Your task to perform on an android device: Add usb-c to usb-a to the cart on ebay, then select checkout. Image 0: 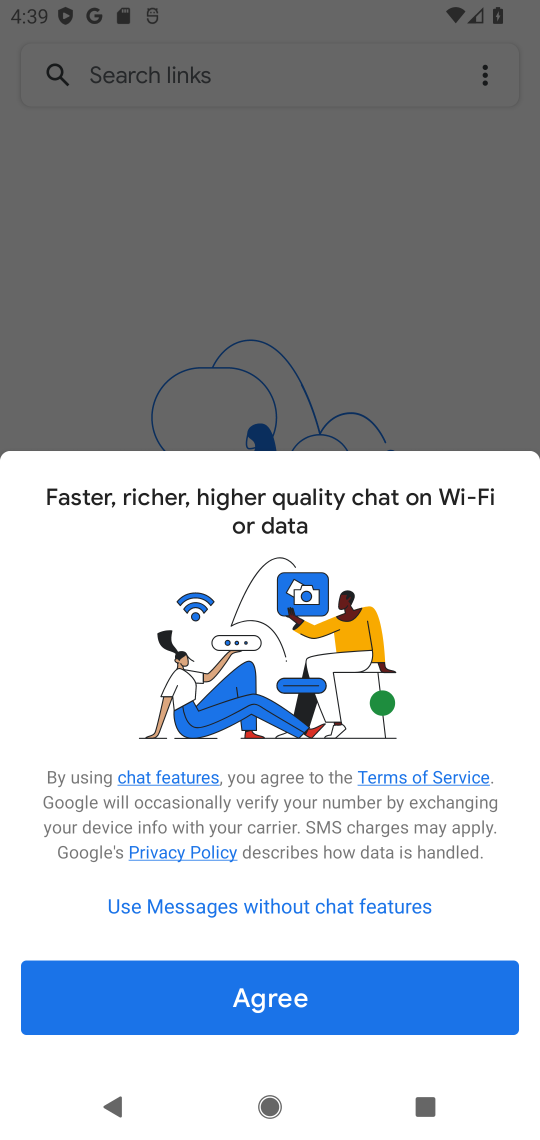
Step 0: press home button
Your task to perform on an android device: Add usb-c to usb-a to the cart on ebay, then select checkout. Image 1: 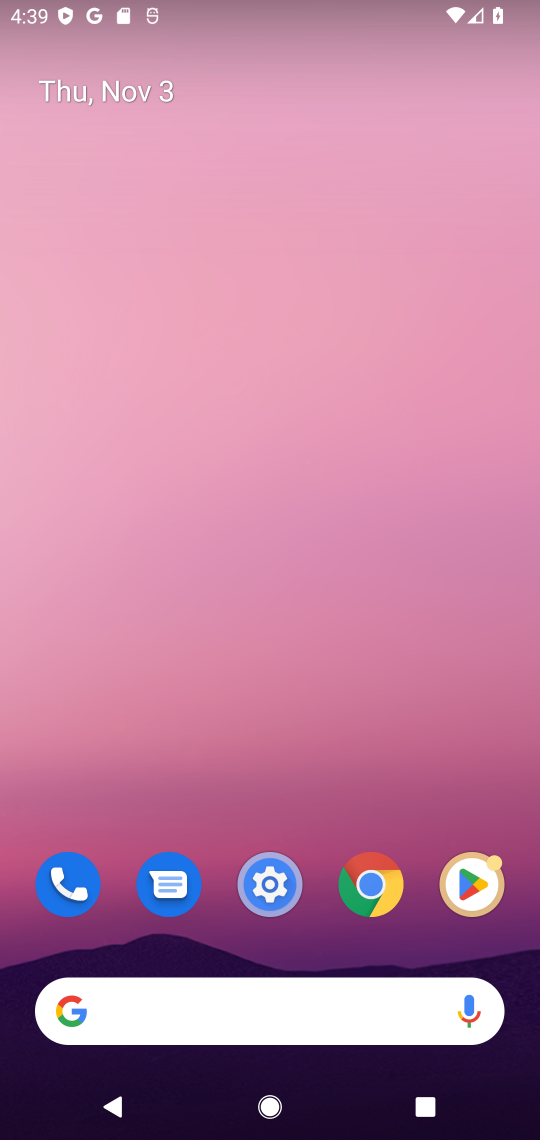
Step 1: click (111, 1005)
Your task to perform on an android device: Add usb-c to usb-a to the cart on ebay, then select checkout. Image 2: 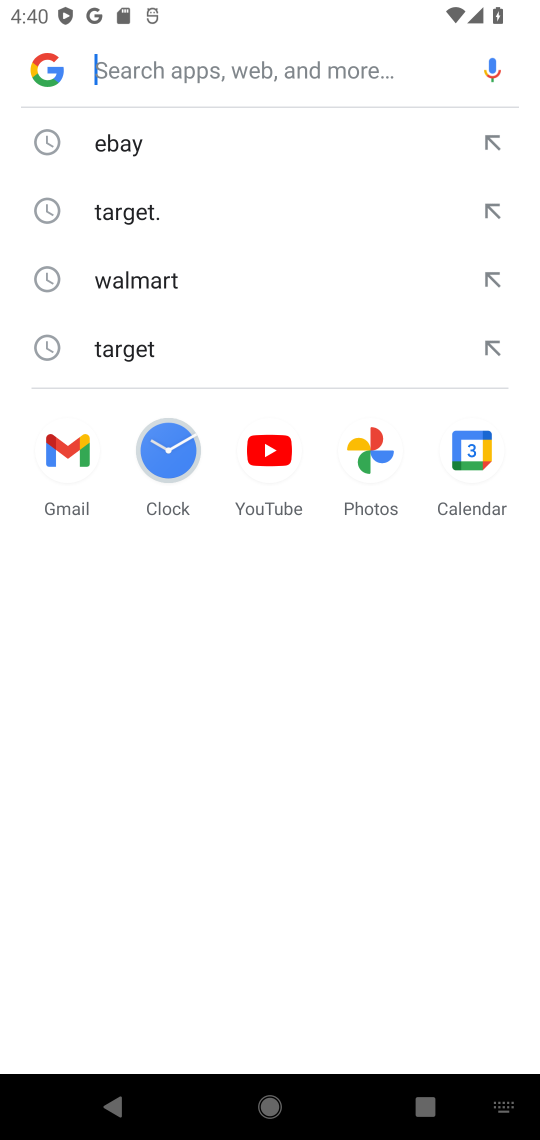
Step 2: type "ebay"
Your task to perform on an android device: Add usb-c to usb-a to the cart on ebay, then select checkout. Image 3: 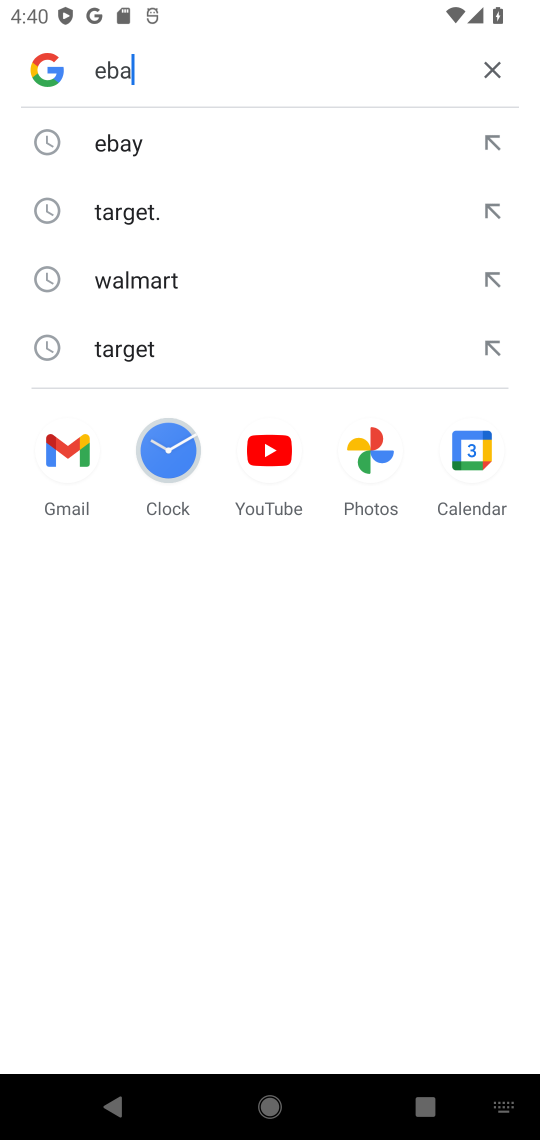
Step 3: press enter
Your task to perform on an android device: Add usb-c to usb-a to the cart on ebay, then select checkout. Image 4: 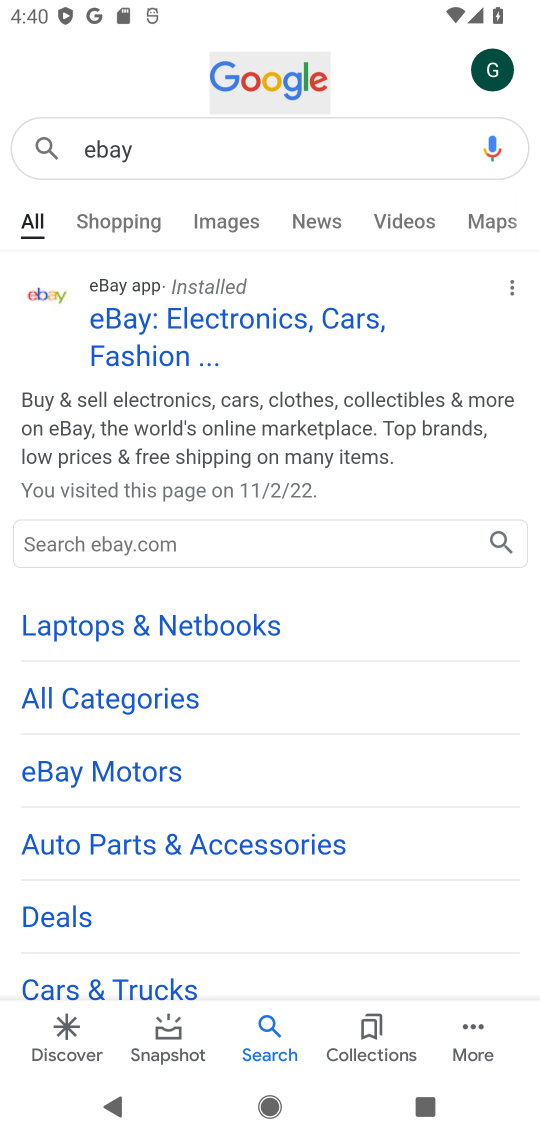
Step 4: click (134, 699)
Your task to perform on an android device: Add usb-c to usb-a to the cart on ebay, then select checkout. Image 5: 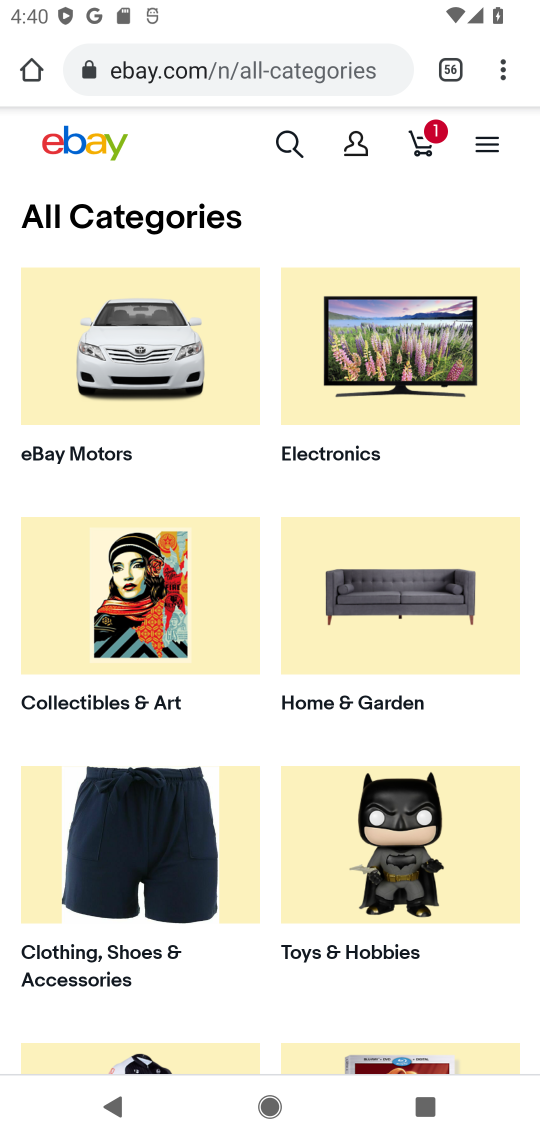
Step 5: click (287, 142)
Your task to perform on an android device: Add usb-c to usb-a to the cart on ebay, then select checkout. Image 6: 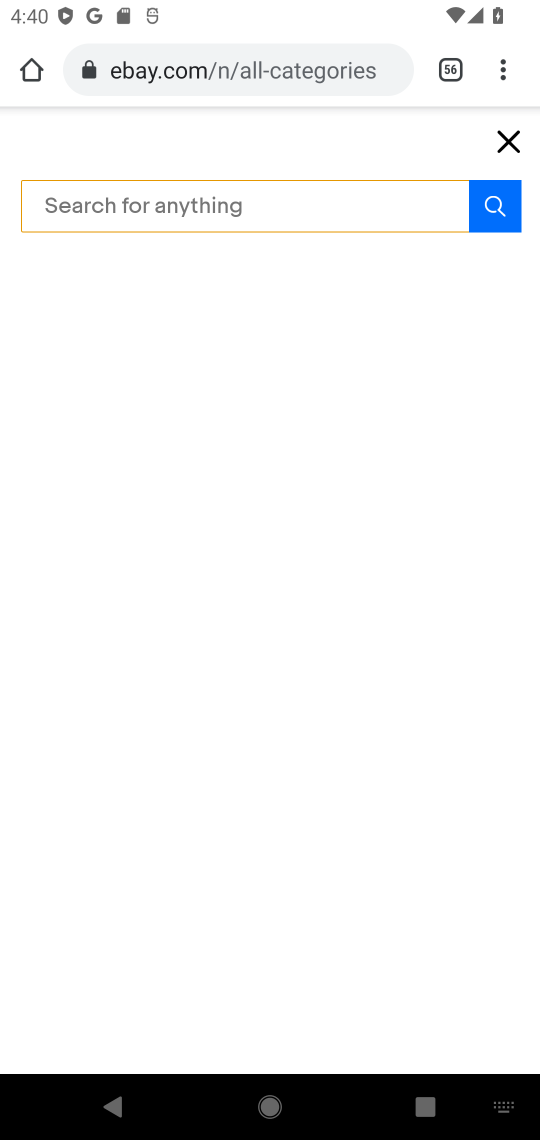
Step 6: type "usb-c to usb-a"
Your task to perform on an android device: Add usb-c to usb-a to the cart on ebay, then select checkout. Image 7: 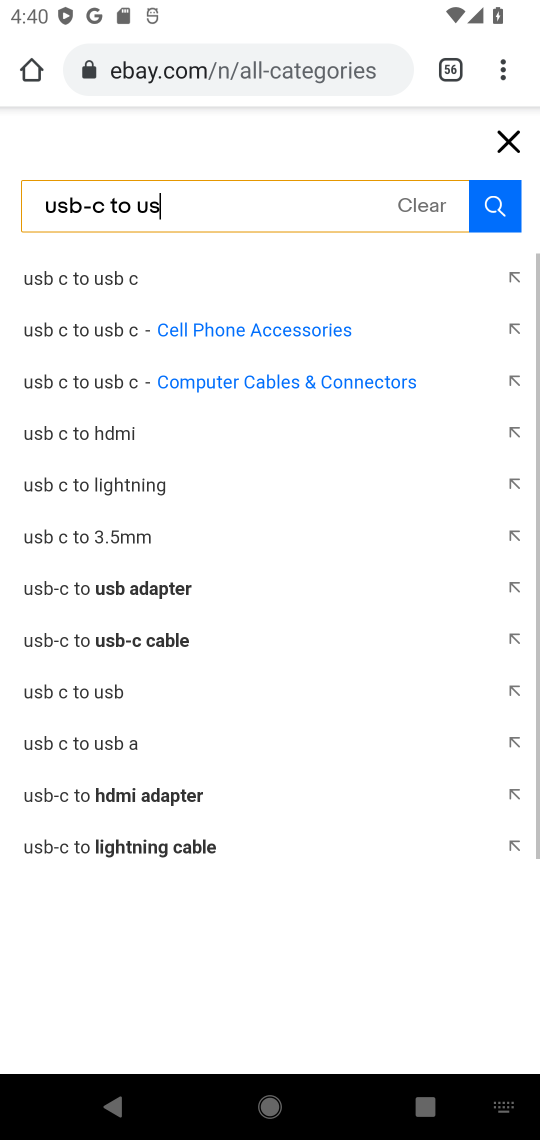
Step 7: press enter
Your task to perform on an android device: Add usb-c to usb-a to the cart on ebay, then select checkout. Image 8: 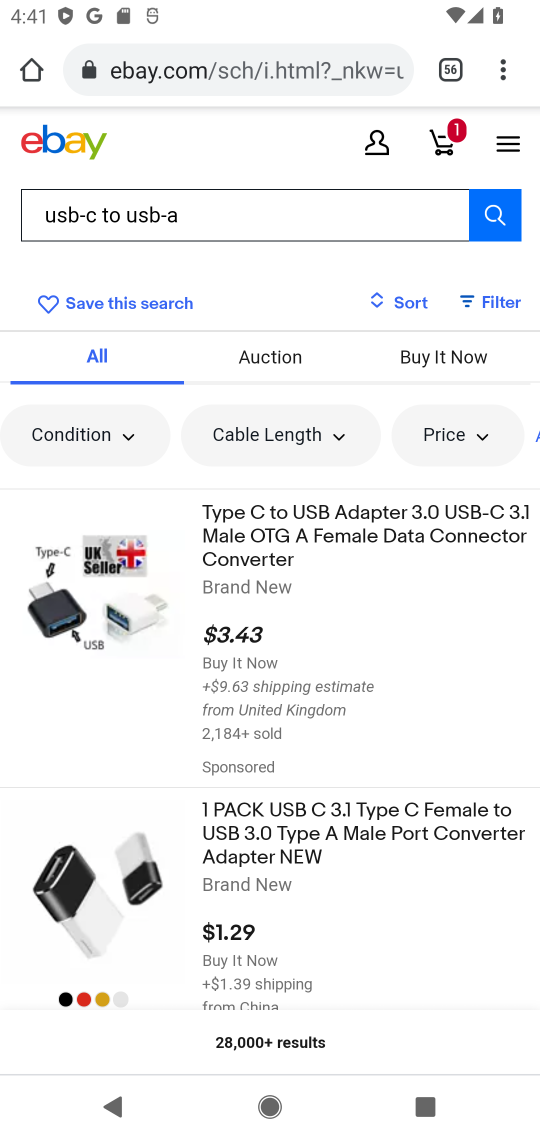
Step 8: drag from (389, 890) to (395, 626)
Your task to perform on an android device: Add usb-c to usb-a to the cart on ebay, then select checkout. Image 9: 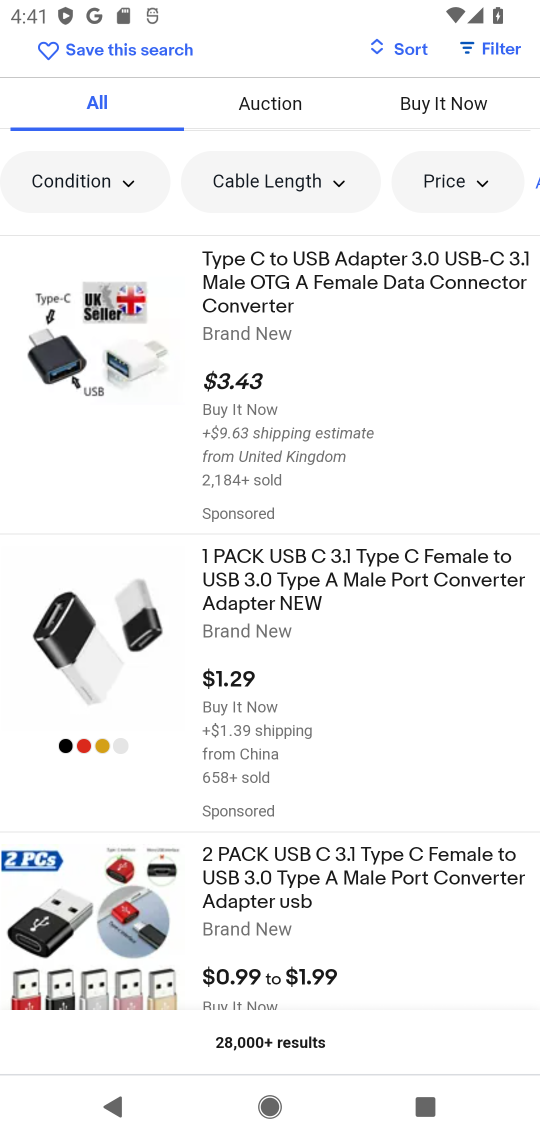
Step 9: drag from (362, 881) to (389, 581)
Your task to perform on an android device: Add usb-c to usb-a to the cart on ebay, then select checkout. Image 10: 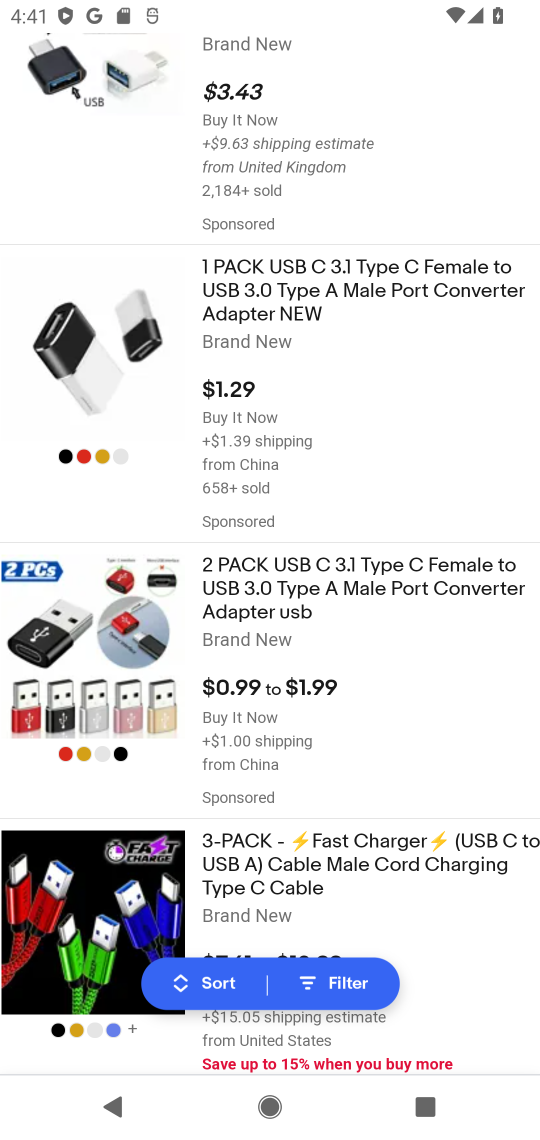
Step 10: drag from (394, 220) to (387, 639)
Your task to perform on an android device: Add usb-c to usb-a to the cart on ebay, then select checkout. Image 11: 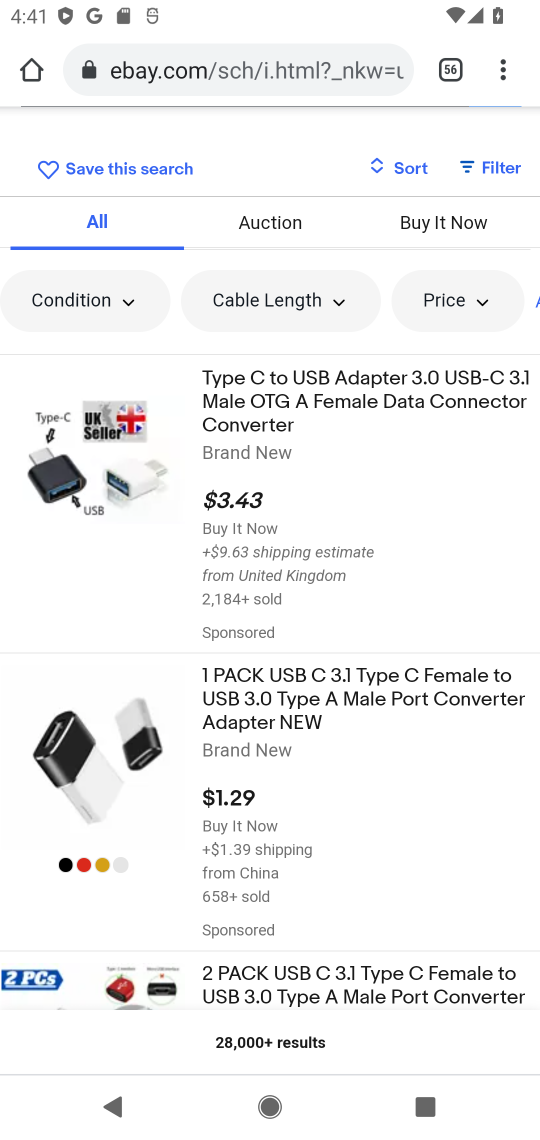
Step 11: drag from (373, 822) to (417, 448)
Your task to perform on an android device: Add usb-c to usb-a to the cart on ebay, then select checkout. Image 12: 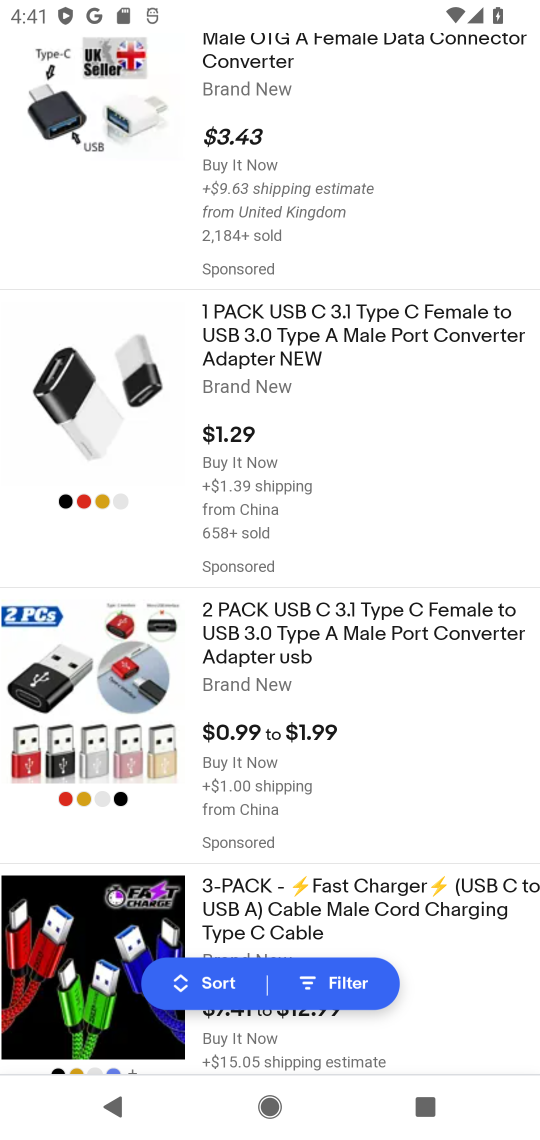
Step 12: drag from (384, 766) to (419, 515)
Your task to perform on an android device: Add usb-c to usb-a to the cart on ebay, then select checkout. Image 13: 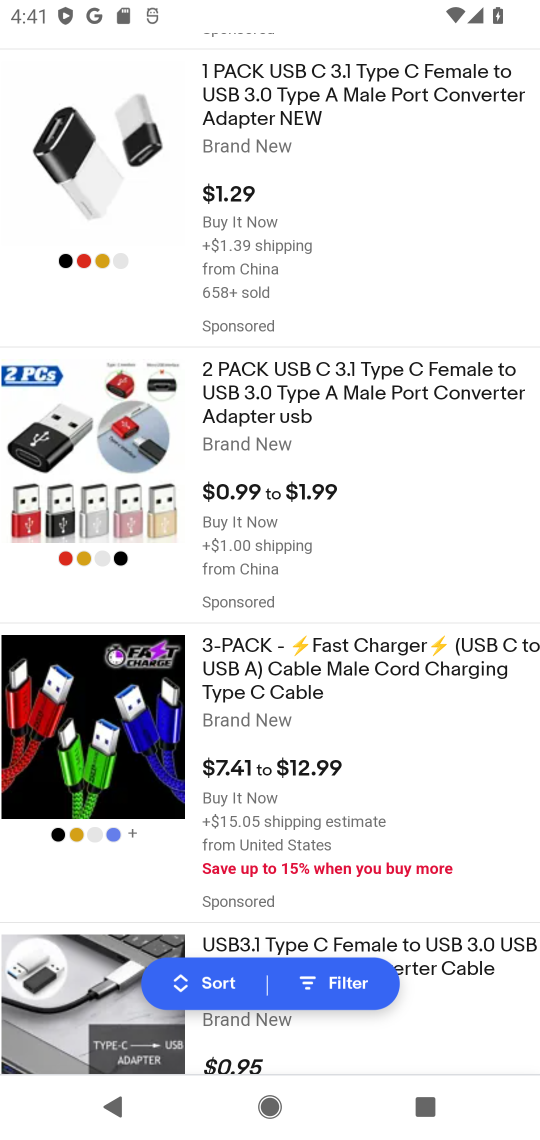
Step 13: drag from (400, 772) to (420, 469)
Your task to perform on an android device: Add usb-c to usb-a to the cart on ebay, then select checkout. Image 14: 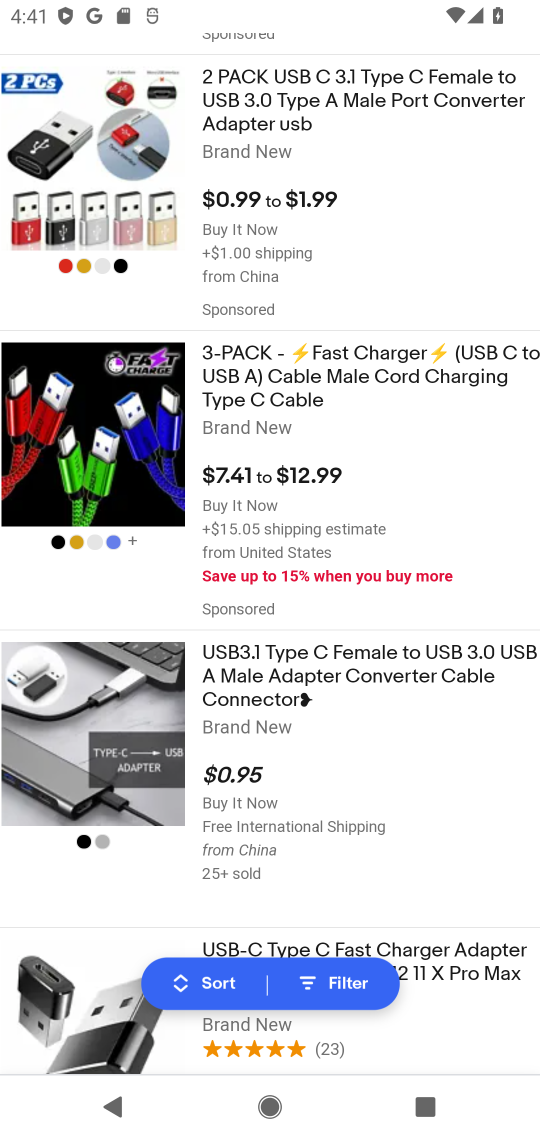
Step 14: drag from (371, 800) to (371, 581)
Your task to perform on an android device: Add usb-c to usb-a to the cart on ebay, then select checkout. Image 15: 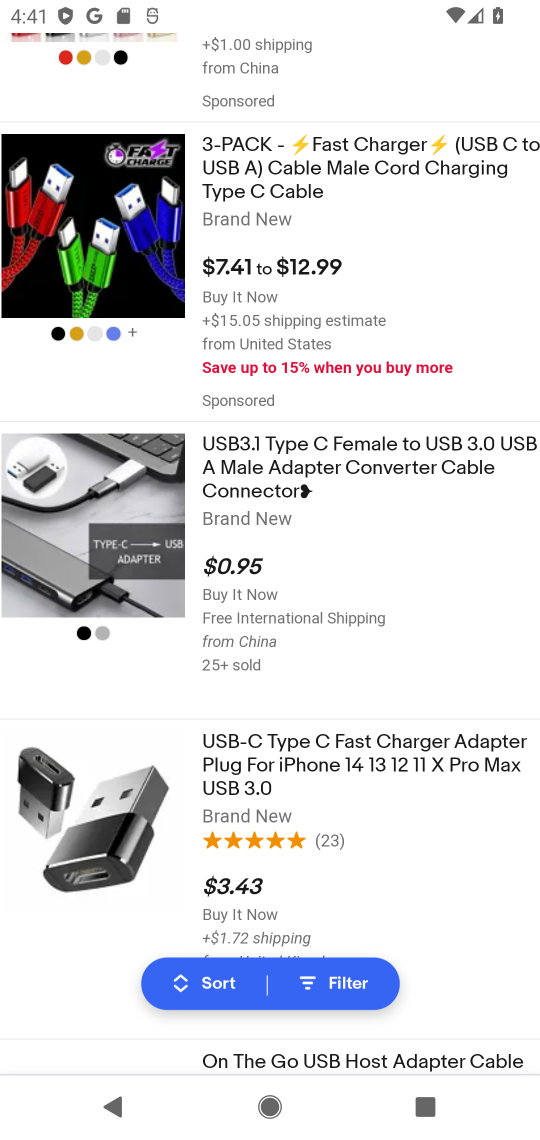
Step 15: drag from (385, 847) to (435, 518)
Your task to perform on an android device: Add usb-c to usb-a to the cart on ebay, then select checkout. Image 16: 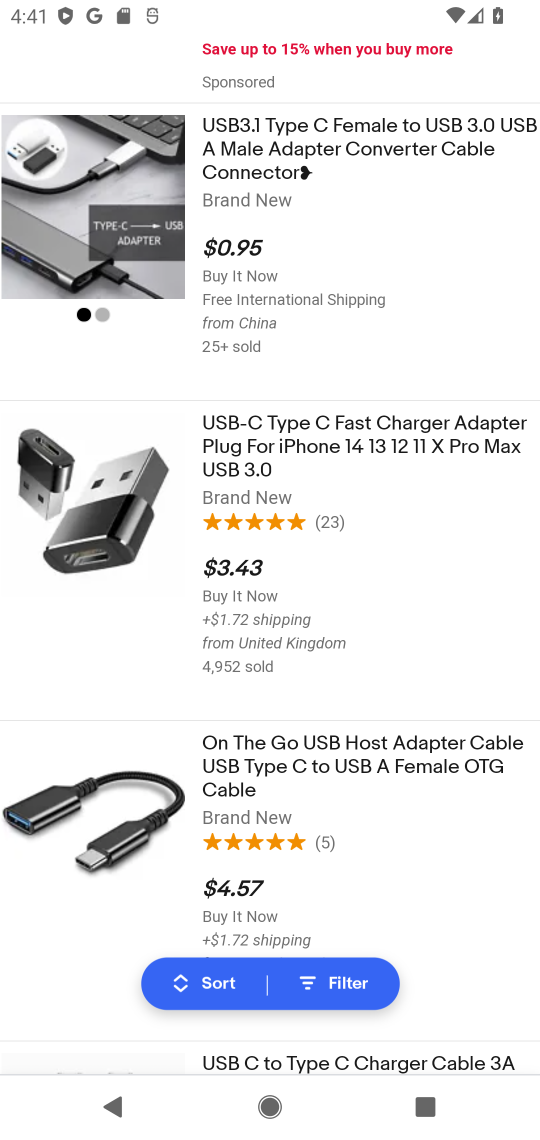
Step 16: drag from (394, 895) to (407, 614)
Your task to perform on an android device: Add usb-c to usb-a to the cart on ebay, then select checkout. Image 17: 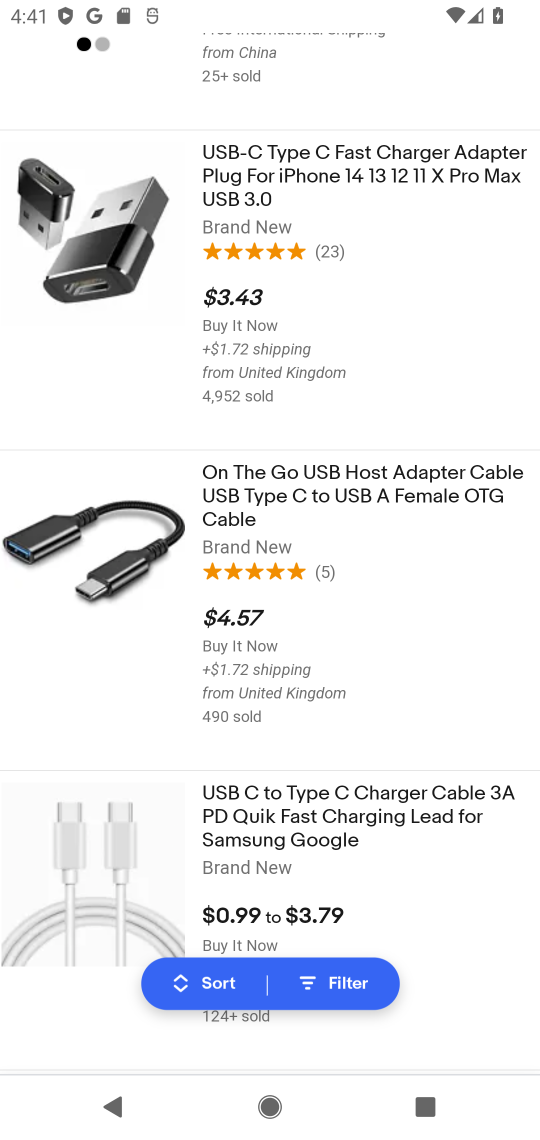
Step 17: click (293, 577)
Your task to perform on an android device: Add usb-c to usb-a to the cart on ebay, then select checkout. Image 18: 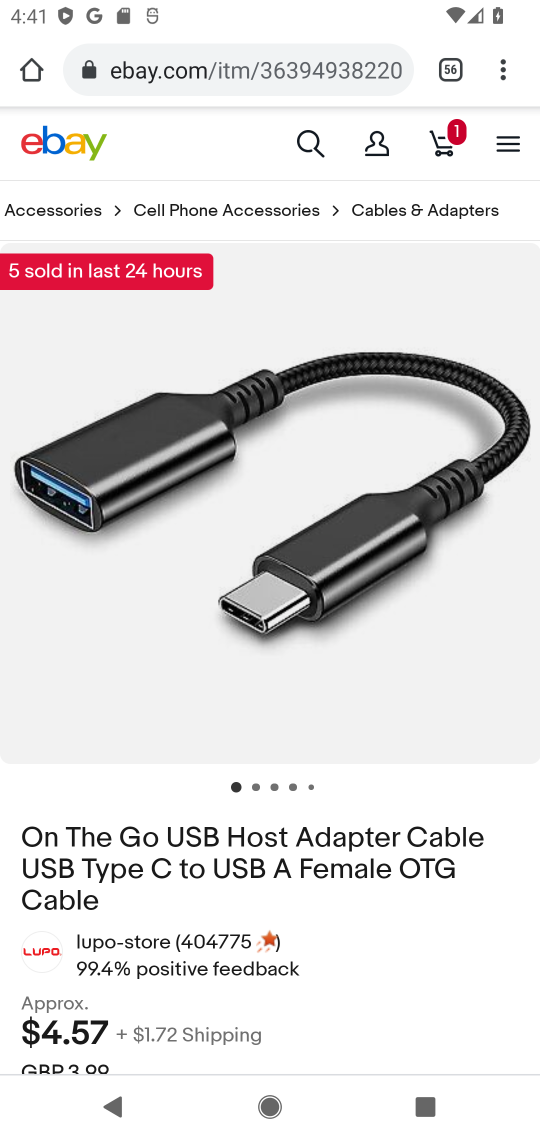
Step 18: drag from (363, 908) to (369, 459)
Your task to perform on an android device: Add usb-c to usb-a to the cart on ebay, then select checkout. Image 19: 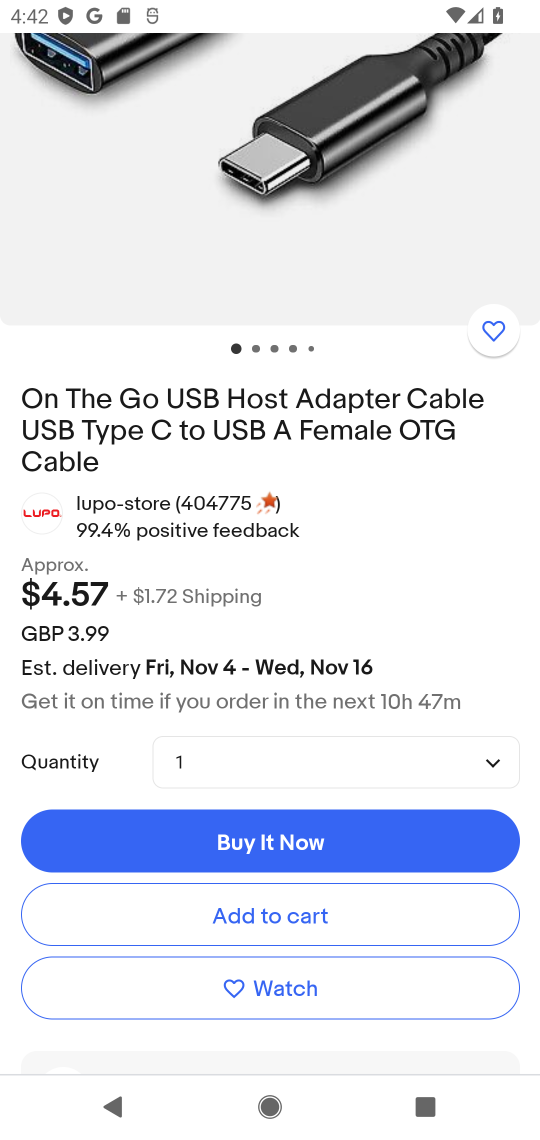
Step 19: click (250, 909)
Your task to perform on an android device: Add usb-c to usb-a to the cart on ebay, then select checkout. Image 20: 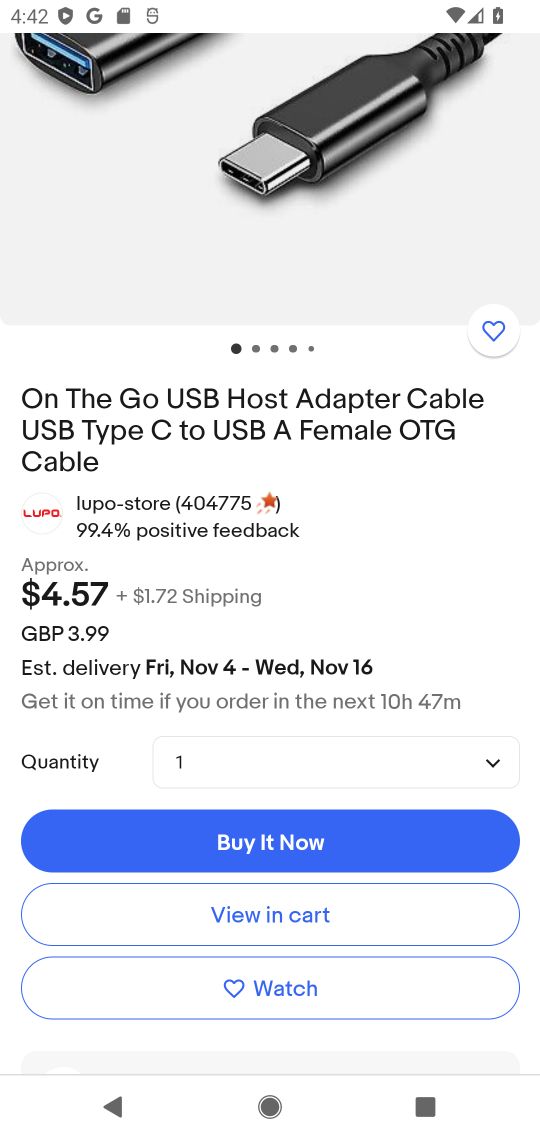
Step 20: click (258, 911)
Your task to perform on an android device: Add usb-c to usb-a to the cart on ebay, then select checkout. Image 21: 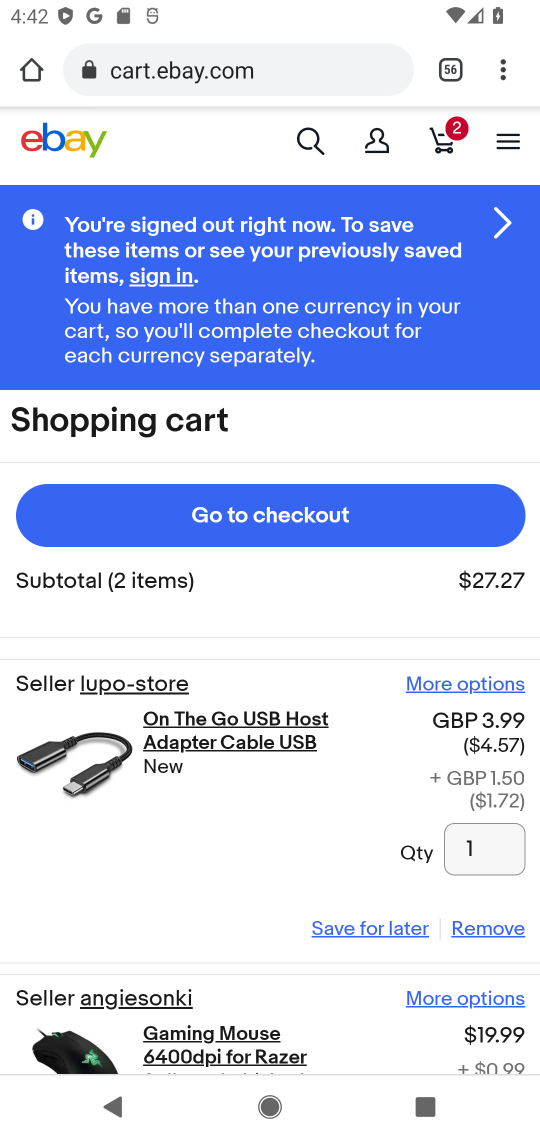
Step 21: click (290, 506)
Your task to perform on an android device: Add usb-c to usb-a to the cart on ebay, then select checkout. Image 22: 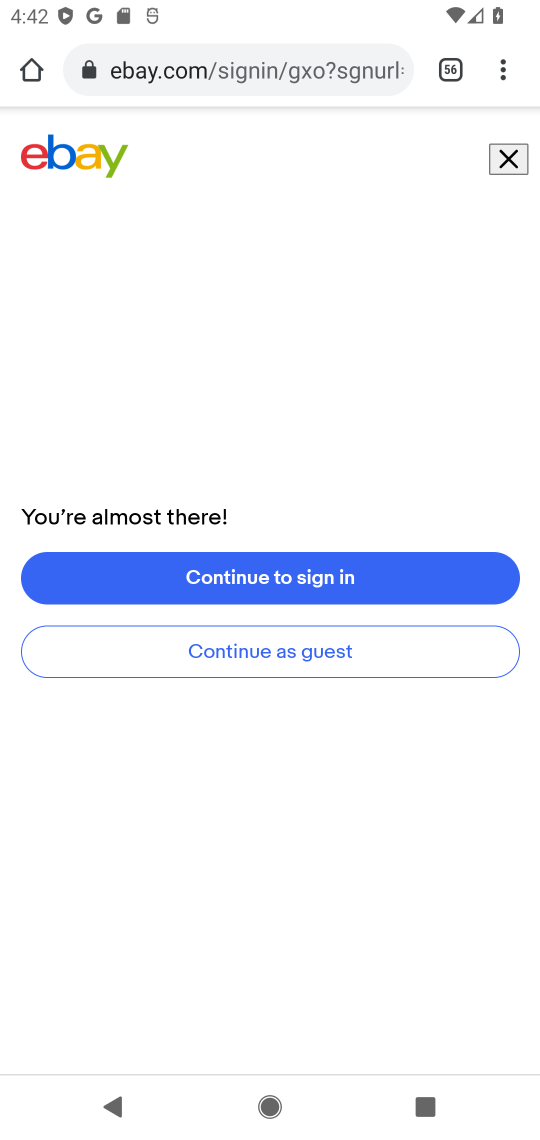
Step 22: task complete